Your task to perform on an android device: delete location history Image 0: 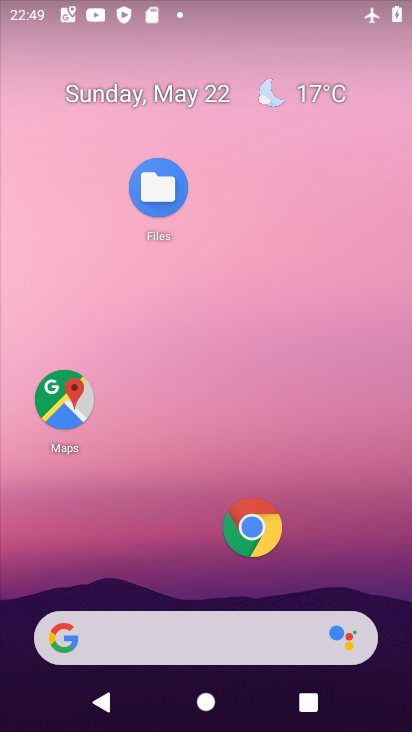
Step 0: drag from (182, 560) to (90, 133)
Your task to perform on an android device: delete location history Image 1: 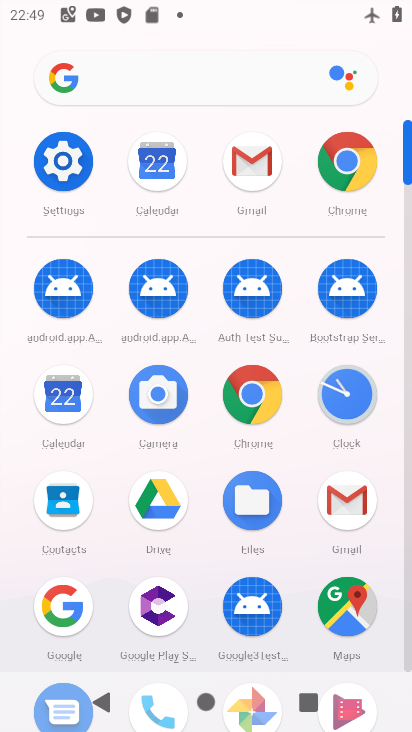
Step 1: click (345, 607)
Your task to perform on an android device: delete location history Image 2: 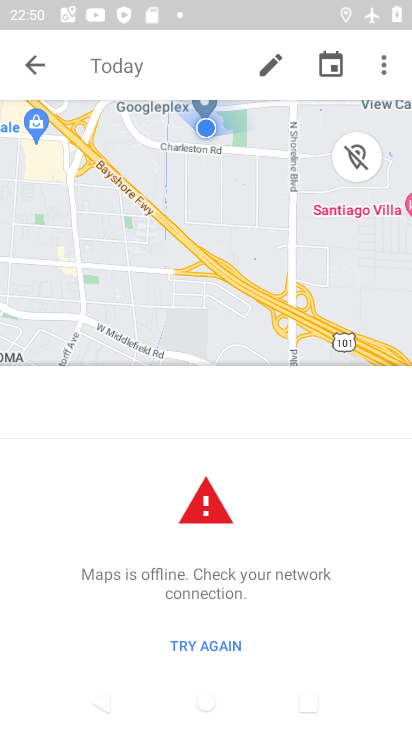
Step 2: click (384, 65)
Your task to perform on an android device: delete location history Image 3: 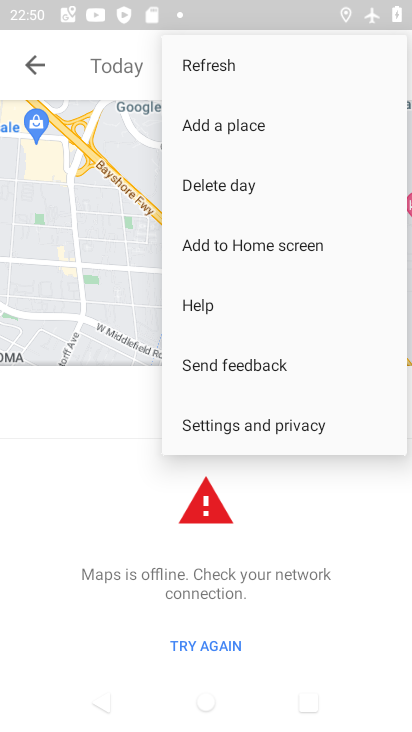
Step 3: click (257, 412)
Your task to perform on an android device: delete location history Image 4: 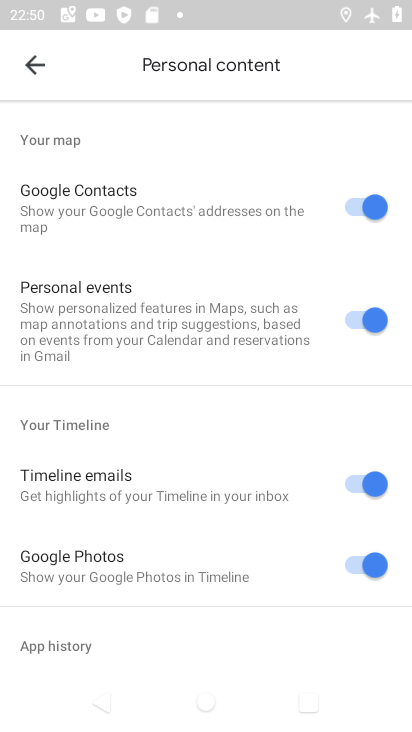
Step 4: drag from (254, 567) to (203, 131)
Your task to perform on an android device: delete location history Image 5: 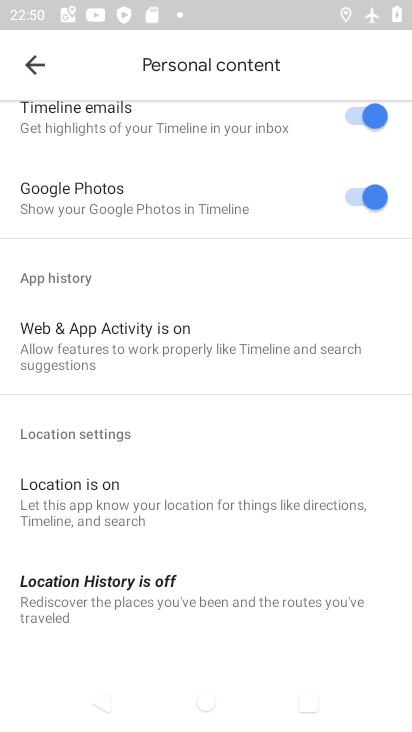
Step 5: drag from (256, 525) to (219, 208)
Your task to perform on an android device: delete location history Image 6: 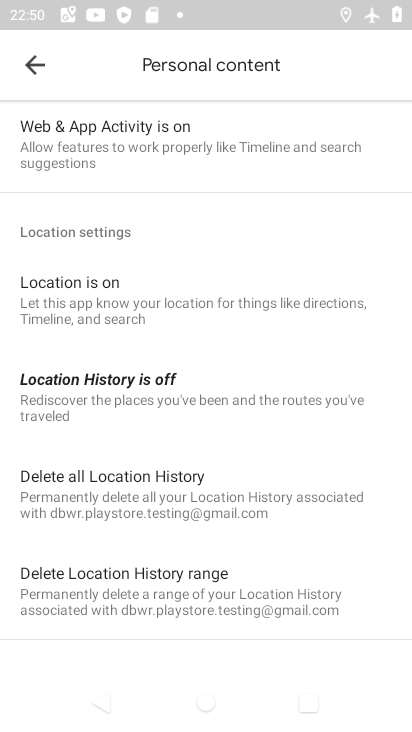
Step 6: click (146, 474)
Your task to perform on an android device: delete location history Image 7: 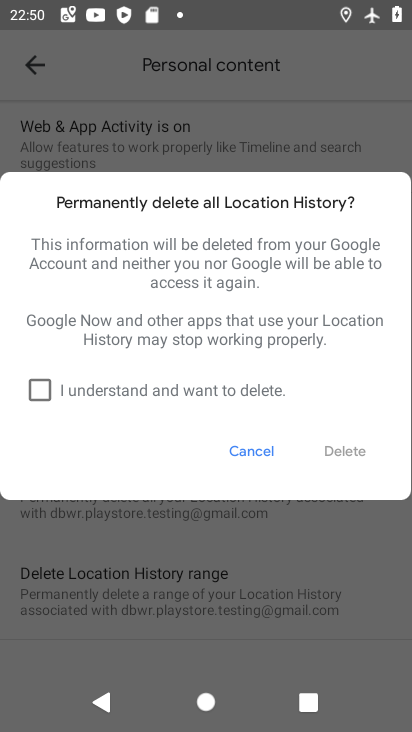
Step 7: click (46, 390)
Your task to perform on an android device: delete location history Image 8: 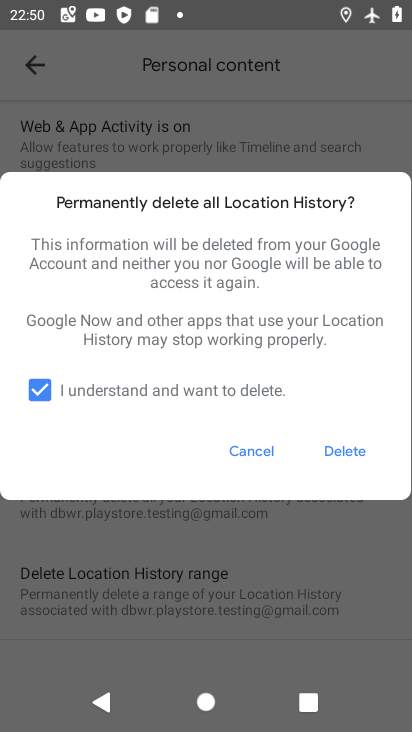
Step 8: click (351, 451)
Your task to perform on an android device: delete location history Image 9: 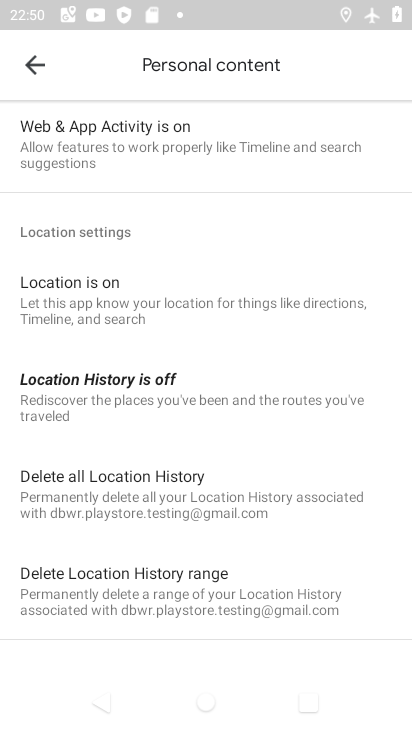
Step 9: task complete